Your task to perform on an android device: Open calendar and show me the second week of next month Image 0: 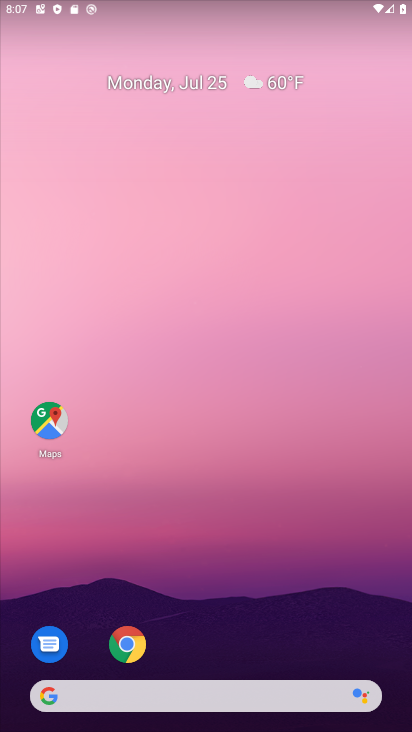
Step 0: drag from (311, 559) to (279, 264)
Your task to perform on an android device: Open calendar and show me the second week of next month Image 1: 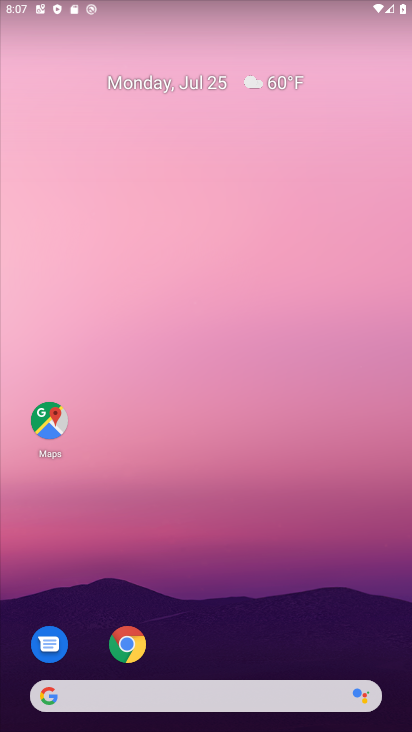
Step 1: drag from (253, 553) to (263, 162)
Your task to perform on an android device: Open calendar and show me the second week of next month Image 2: 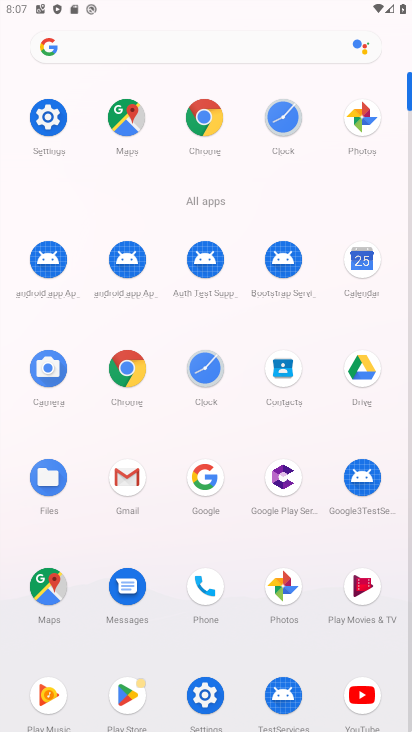
Step 2: click (362, 268)
Your task to perform on an android device: Open calendar and show me the second week of next month Image 3: 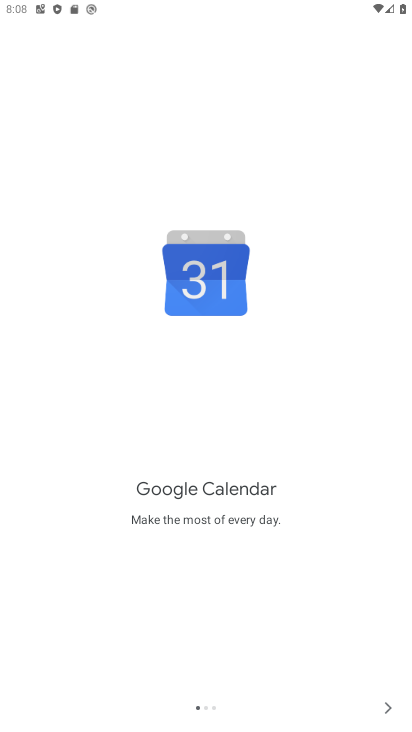
Step 3: click (387, 711)
Your task to perform on an android device: Open calendar and show me the second week of next month Image 4: 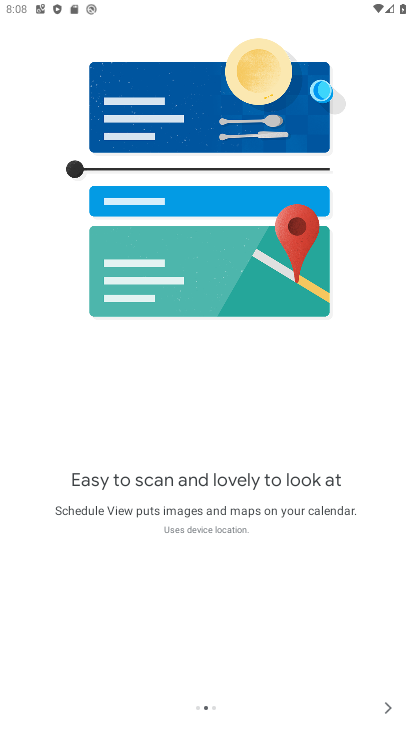
Step 4: click (387, 711)
Your task to perform on an android device: Open calendar and show me the second week of next month Image 5: 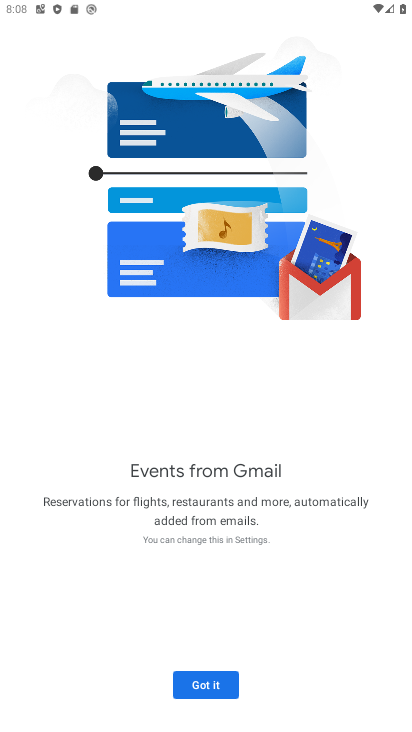
Step 5: click (212, 676)
Your task to perform on an android device: Open calendar and show me the second week of next month Image 6: 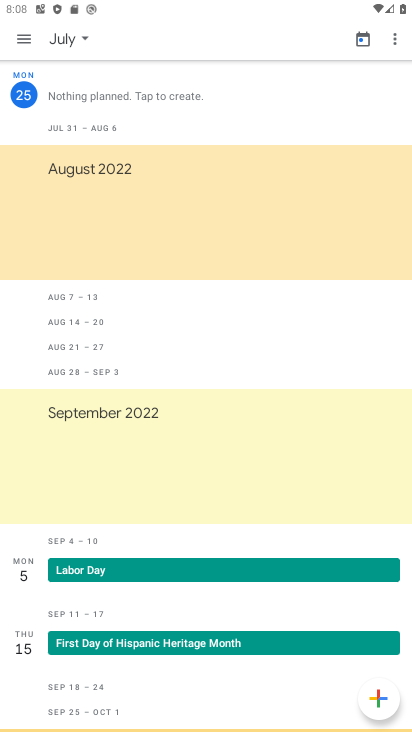
Step 6: task complete